Your task to perform on an android device: search for starred emails in the gmail app Image 0: 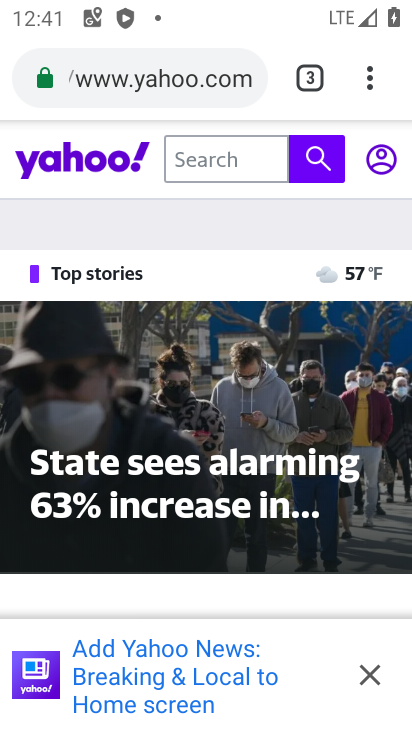
Step 0: press home button
Your task to perform on an android device: search for starred emails in the gmail app Image 1: 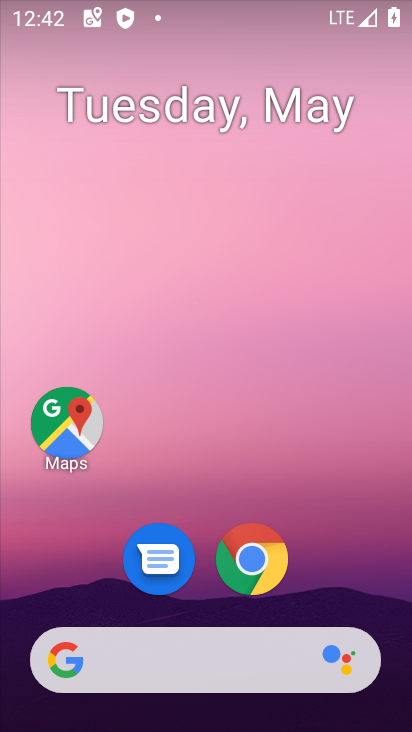
Step 1: drag from (320, 595) to (269, 176)
Your task to perform on an android device: search for starred emails in the gmail app Image 2: 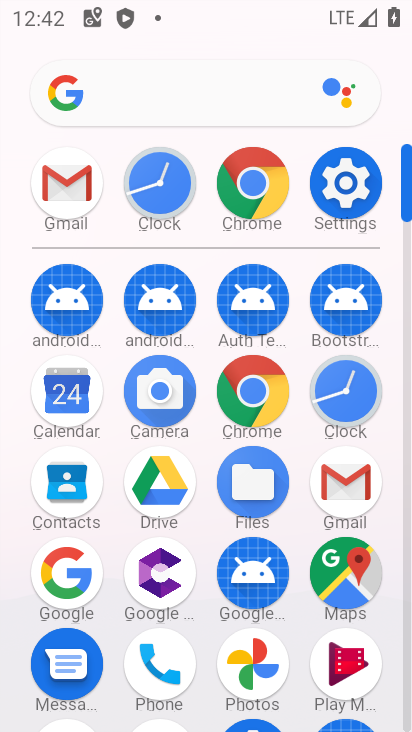
Step 2: click (82, 174)
Your task to perform on an android device: search for starred emails in the gmail app Image 3: 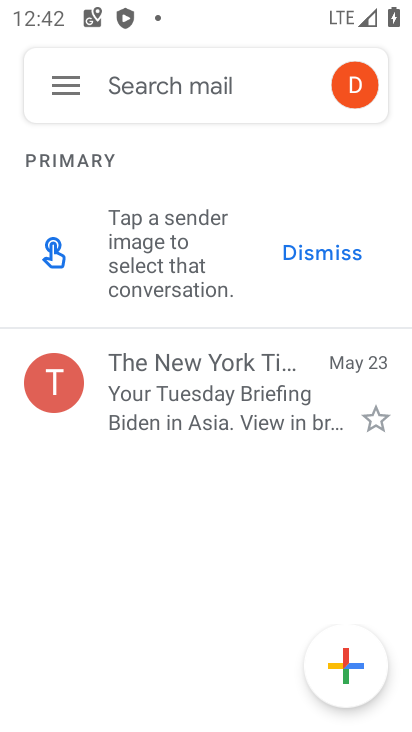
Step 3: click (58, 87)
Your task to perform on an android device: search for starred emails in the gmail app Image 4: 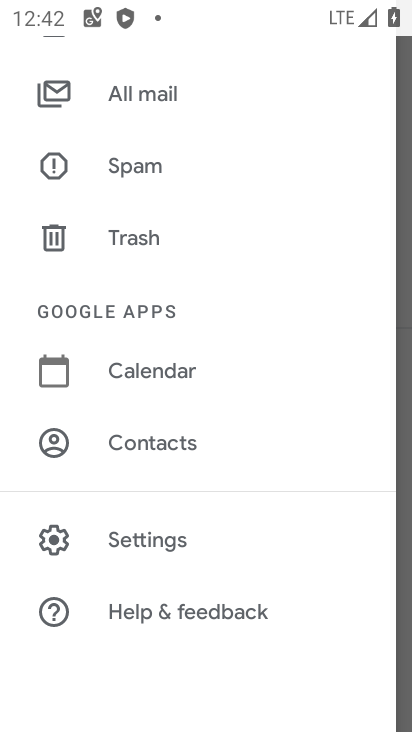
Step 4: drag from (160, 238) to (311, 658)
Your task to perform on an android device: search for starred emails in the gmail app Image 5: 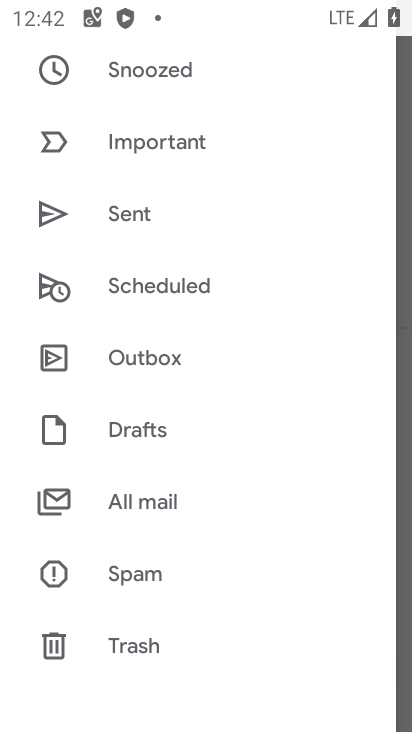
Step 5: drag from (225, 257) to (303, 501)
Your task to perform on an android device: search for starred emails in the gmail app Image 6: 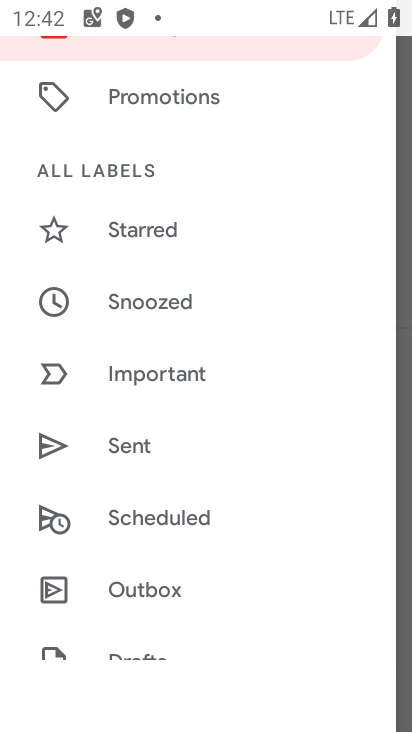
Step 6: click (238, 239)
Your task to perform on an android device: search for starred emails in the gmail app Image 7: 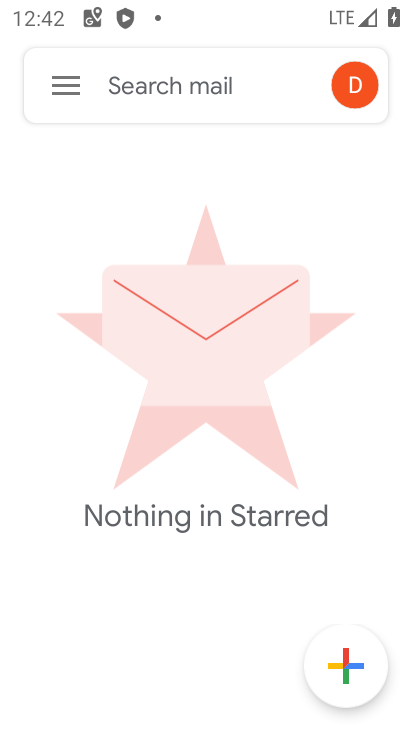
Step 7: task complete